Your task to perform on an android device: change the clock style Image 0: 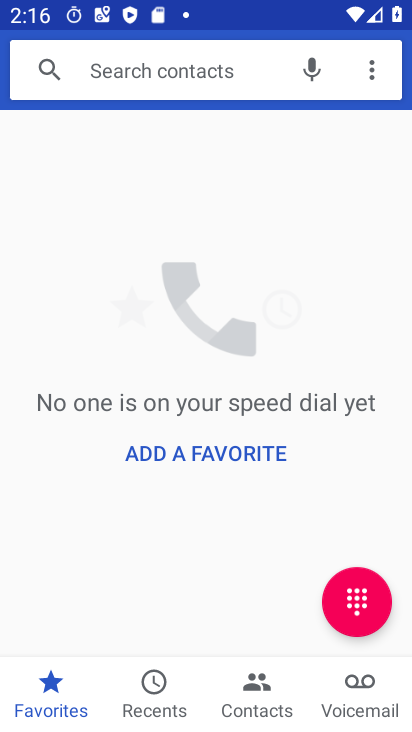
Step 0: press home button
Your task to perform on an android device: change the clock style Image 1: 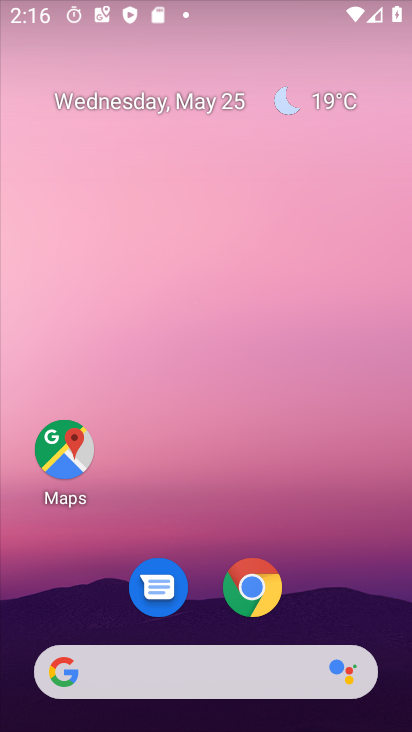
Step 1: drag from (221, 532) to (268, 91)
Your task to perform on an android device: change the clock style Image 2: 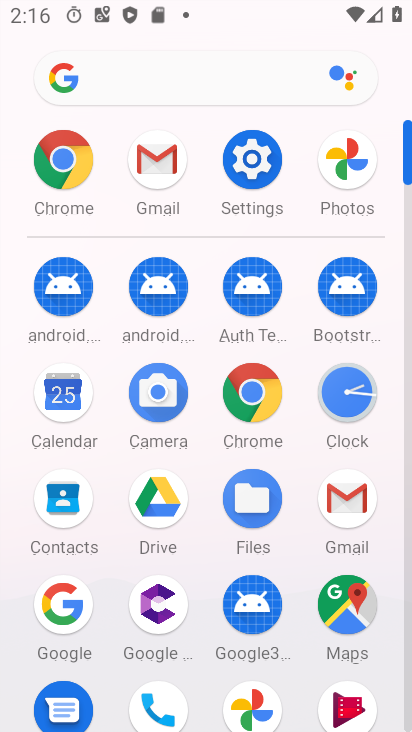
Step 2: click (354, 391)
Your task to perform on an android device: change the clock style Image 3: 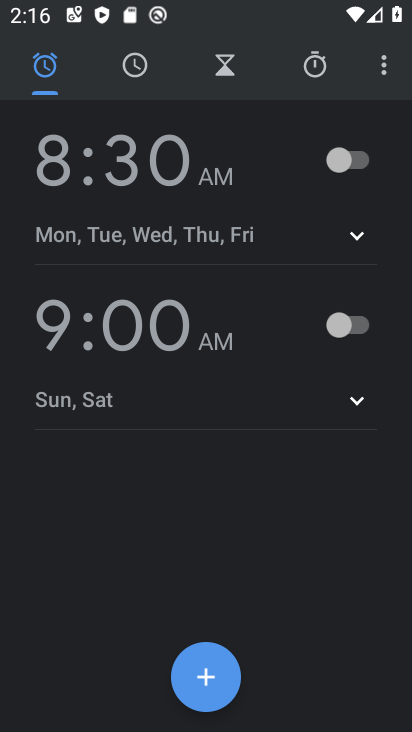
Step 3: click (369, 70)
Your task to perform on an android device: change the clock style Image 4: 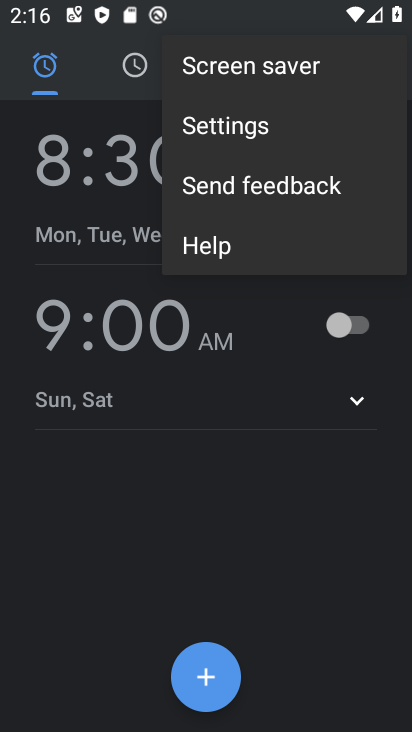
Step 4: click (271, 133)
Your task to perform on an android device: change the clock style Image 5: 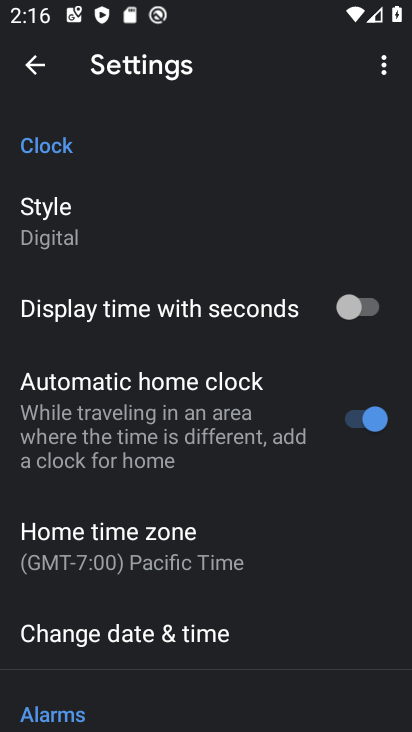
Step 5: click (89, 231)
Your task to perform on an android device: change the clock style Image 6: 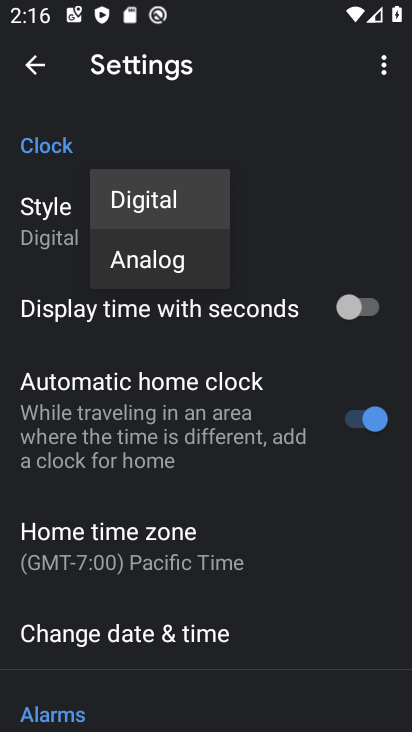
Step 6: click (165, 266)
Your task to perform on an android device: change the clock style Image 7: 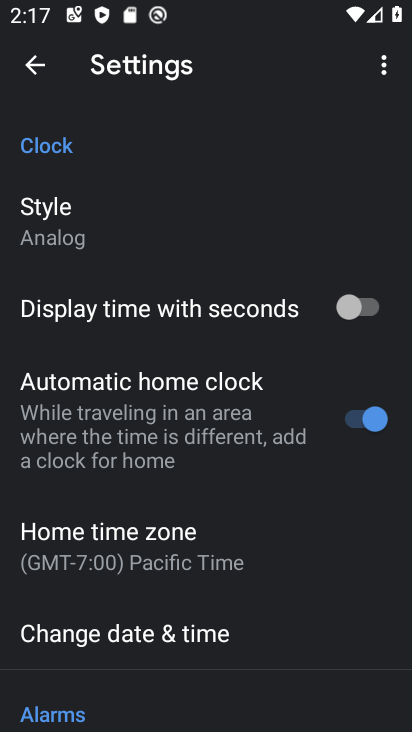
Step 7: task complete